Your task to perform on an android device: turn off picture-in-picture Image 0: 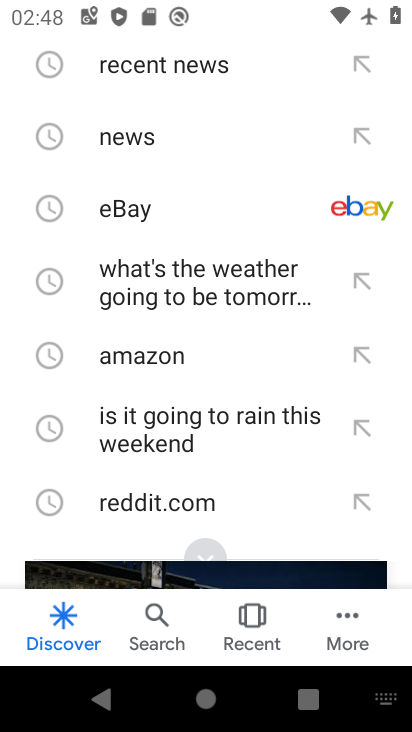
Step 0: press home button
Your task to perform on an android device: turn off picture-in-picture Image 1: 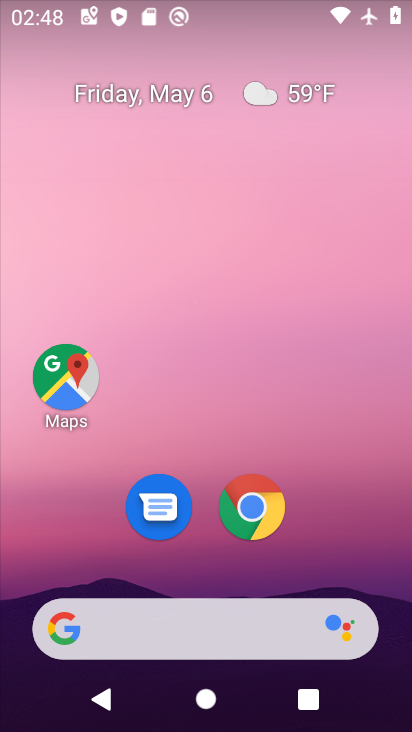
Step 1: drag from (301, 559) to (302, 113)
Your task to perform on an android device: turn off picture-in-picture Image 2: 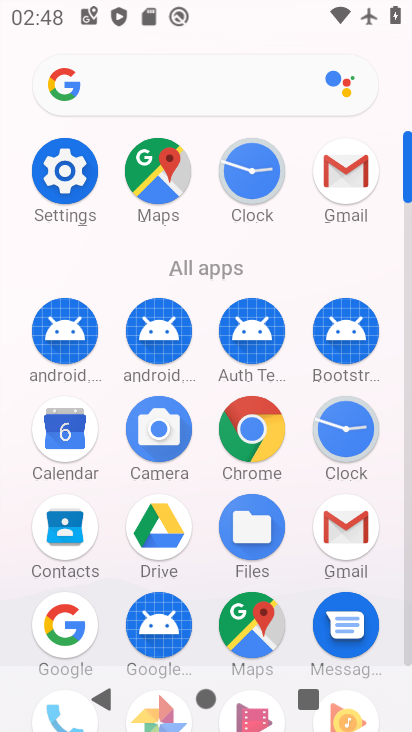
Step 2: drag from (304, 630) to (291, 353)
Your task to perform on an android device: turn off picture-in-picture Image 3: 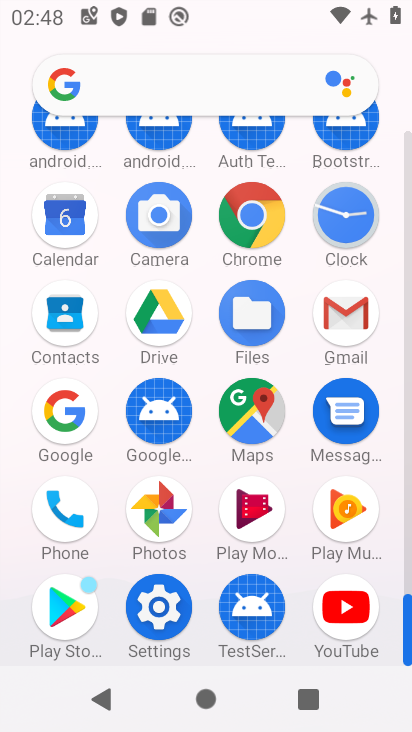
Step 3: click (140, 618)
Your task to perform on an android device: turn off picture-in-picture Image 4: 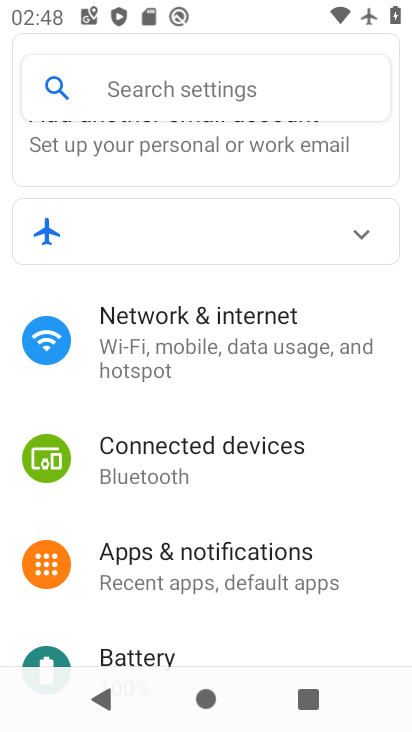
Step 4: drag from (237, 615) to (255, 316)
Your task to perform on an android device: turn off picture-in-picture Image 5: 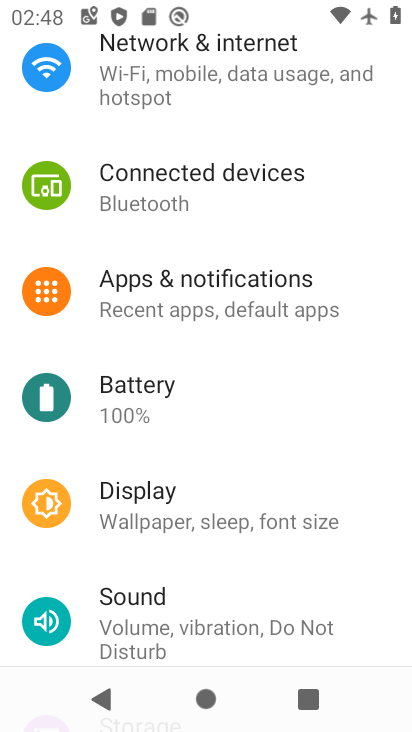
Step 5: drag from (257, 616) to (248, 334)
Your task to perform on an android device: turn off picture-in-picture Image 6: 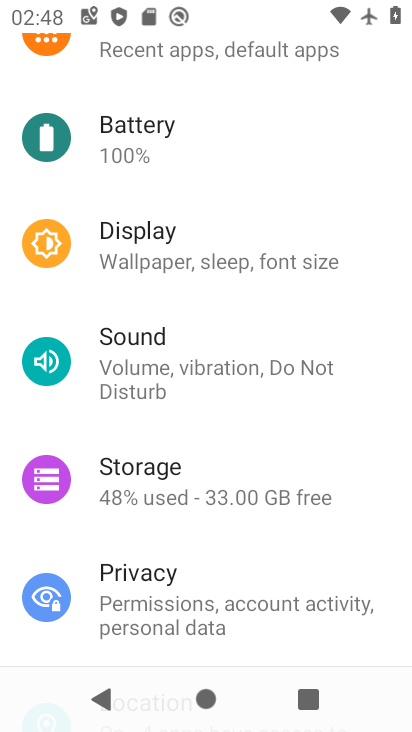
Step 6: drag from (274, 626) to (272, 348)
Your task to perform on an android device: turn off picture-in-picture Image 7: 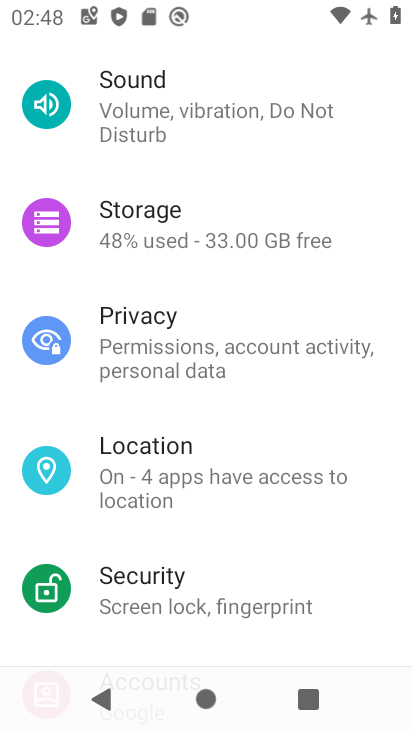
Step 7: drag from (281, 340) to (277, 616)
Your task to perform on an android device: turn off picture-in-picture Image 8: 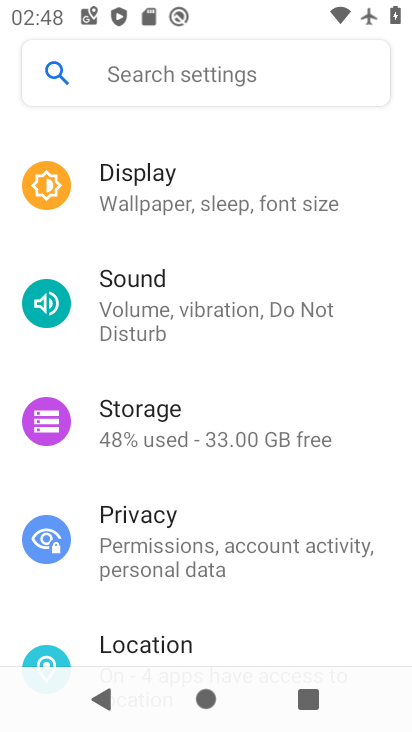
Step 8: drag from (287, 264) to (285, 625)
Your task to perform on an android device: turn off picture-in-picture Image 9: 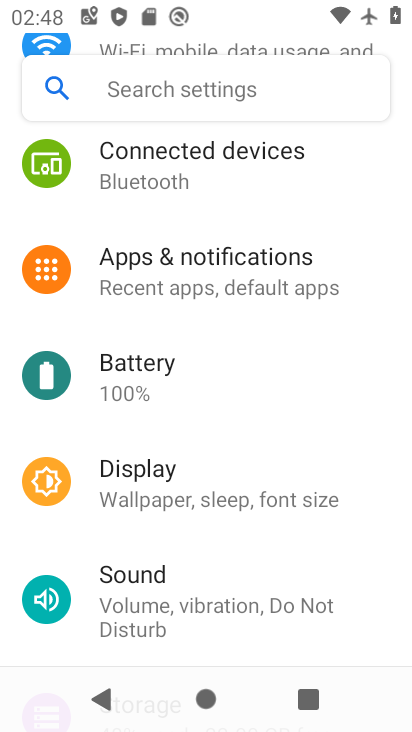
Step 9: drag from (273, 249) to (266, 562)
Your task to perform on an android device: turn off picture-in-picture Image 10: 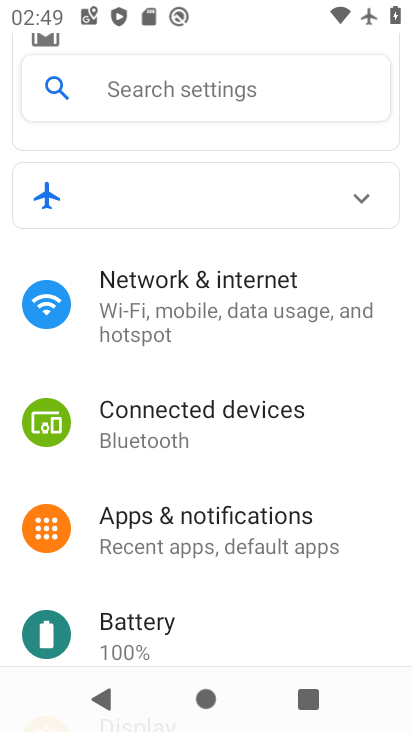
Step 10: drag from (246, 606) to (254, 325)
Your task to perform on an android device: turn off picture-in-picture Image 11: 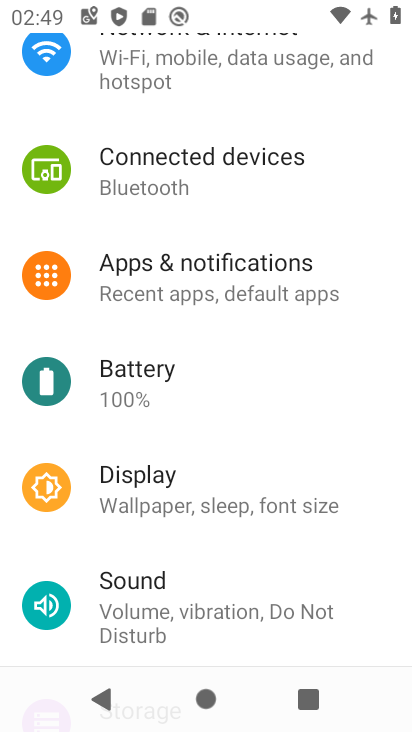
Step 11: drag from (307, 620) to (308, 686)
Your task to perform on an android device: turn off picture-in-picture Image 12: 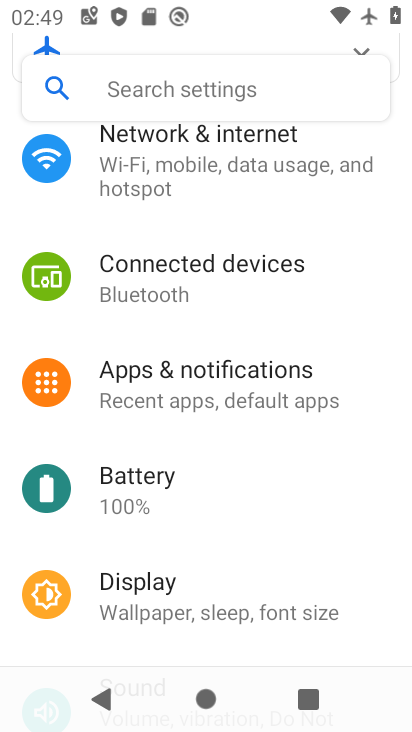
Step 12: drag from (284, 427) to (267, 575)
Your task to perform on an android device: turn off picture-in-picture Image 13: 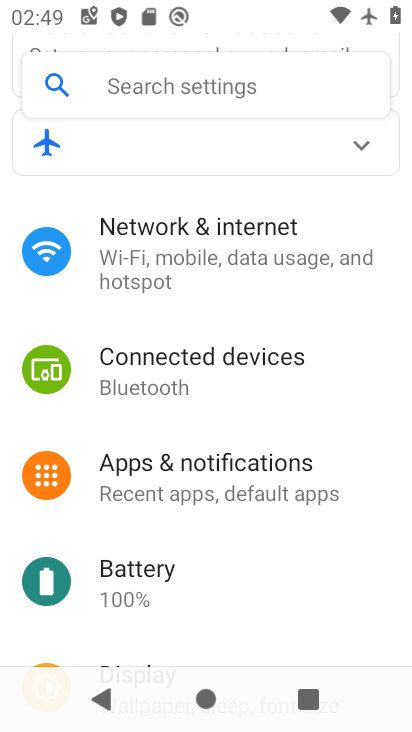
Step 13: click (248, 491)
Your task to perform on an android device: turn off picture-in-picture Image 14: 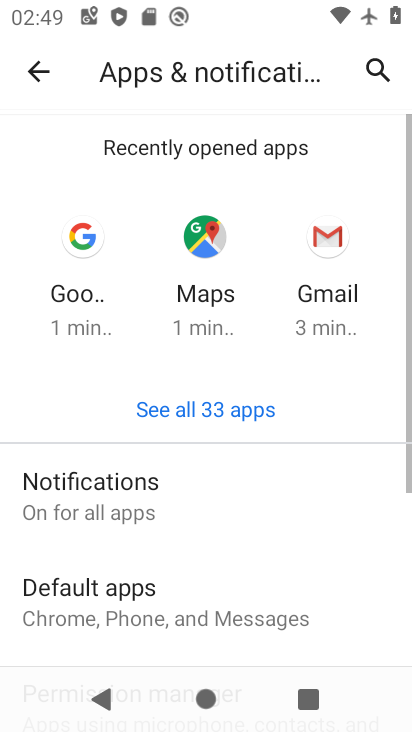
Step 14: drag from (239, 605) to (249, 233)
Your task to perform on an android device: turn off picture-in-picture Image 15: 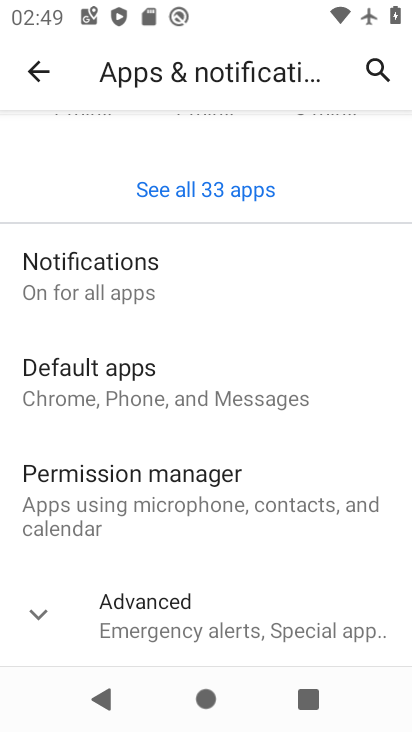
Step 15: click (32, 618)
Your task to perform on an android device: turn off picture-in-picture Image 16: 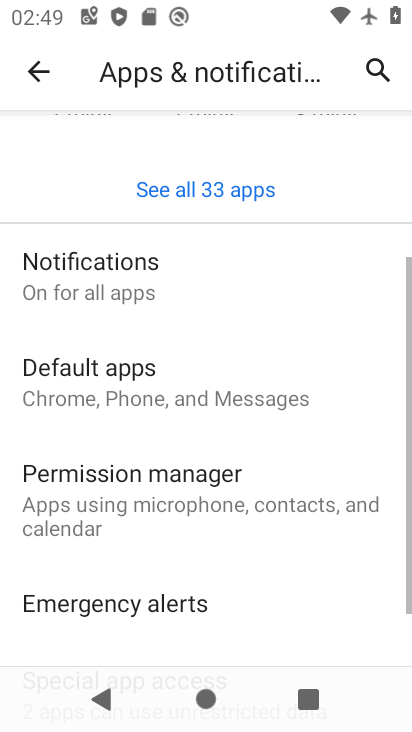
Step 16: drag from (204, 588) to (225, 229)
Your task to perform on an android device: turn off picture-in-picture Image 17: 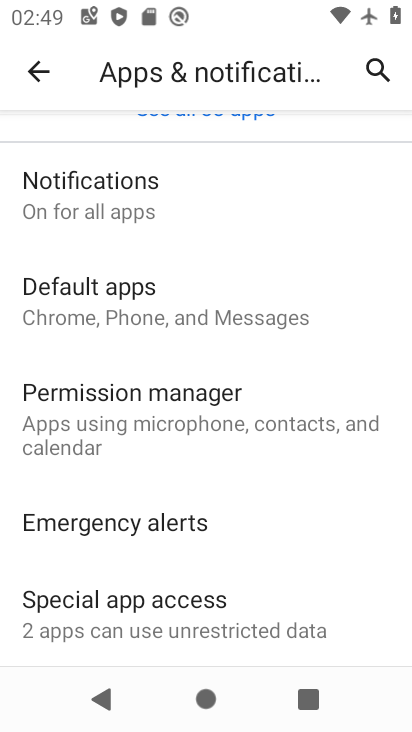
Step 17: click (136, 624)
Your task to perform on an android device: turn off picture-in-picture Image 18: 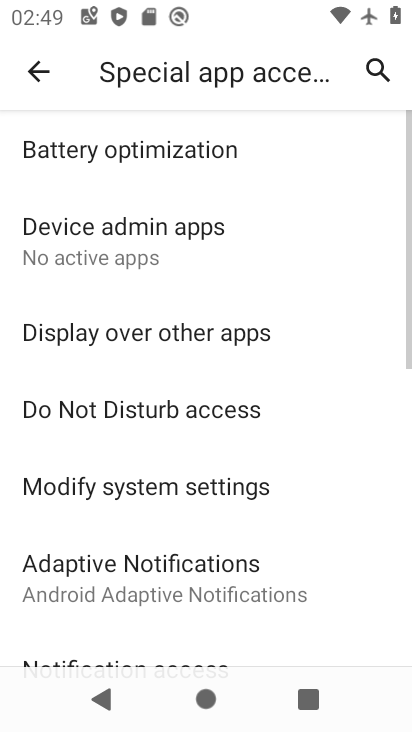
Step 18: drag from (166, 610) to (205, 281)
Your task to perform on an android device: turn off picture-in-picture Image 19: 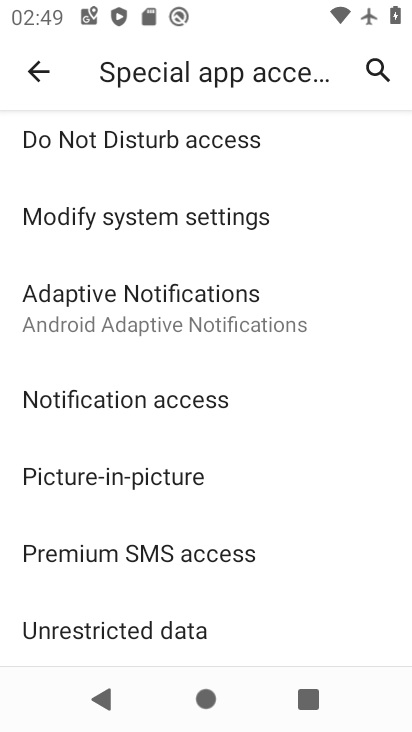
Step 19: click (171, 484)
Your task to perform on an android device: turn off picture-in-picture Image 20: 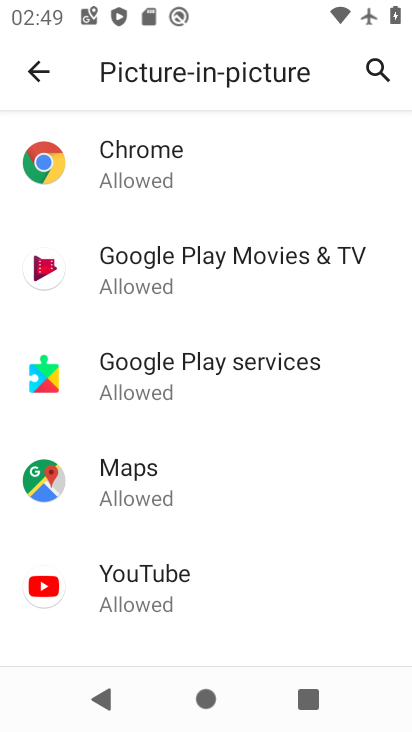
Step 20: click (224, 163)
Your task to perform on an android device: turn off picture-in-picture Image 21: 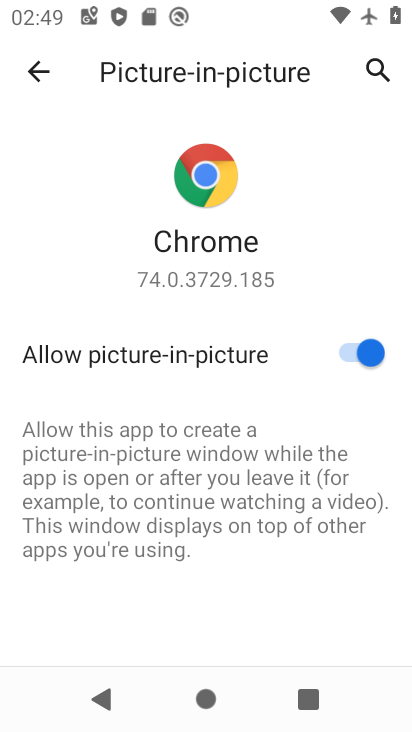
Step 21: click (369, 360)
Your task to perform on an android device: turn off picture-in-picture Image 22: 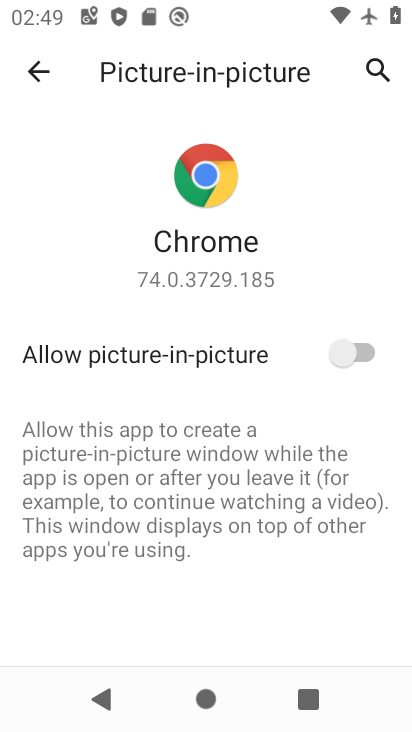
Step 22: task complete